Your task to perform on an android device: Open location settings Image 0: 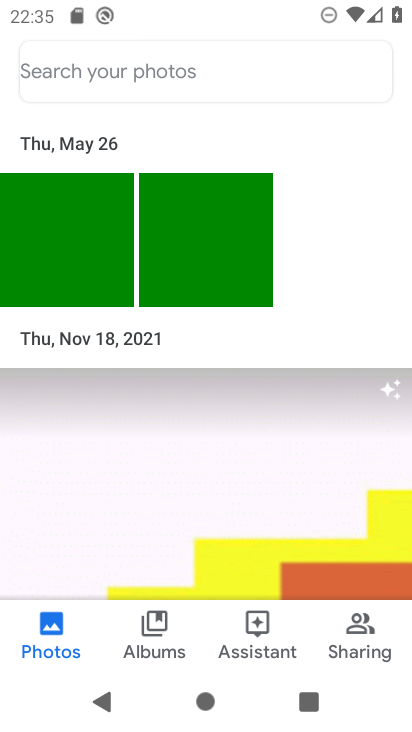
Step 0: press home button
Your task to perform on an android device: Open location settings Image 1: 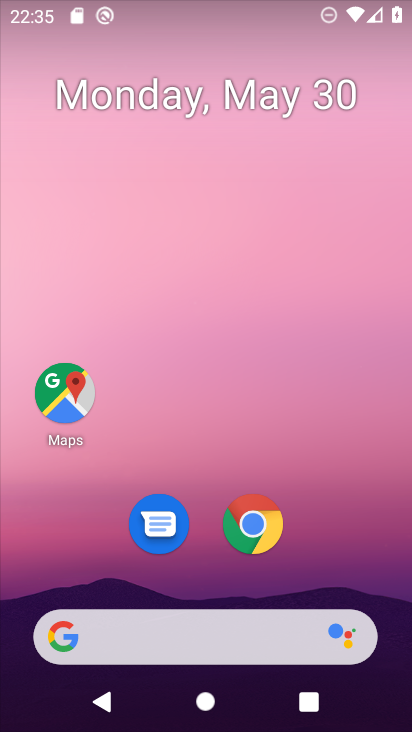
Step 1: drag from (325, 534) to (259, 42)
Your task to perform on an android device: Open location settings Image 2: 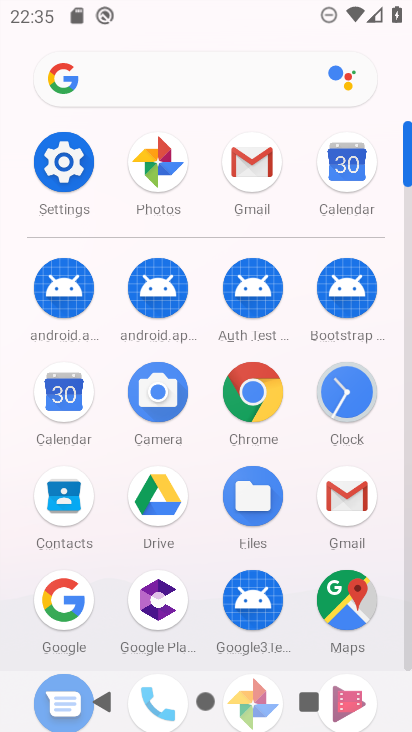
Step 2: click (58, 166)
Your task to perform on an android device: Open location settings Image 3: 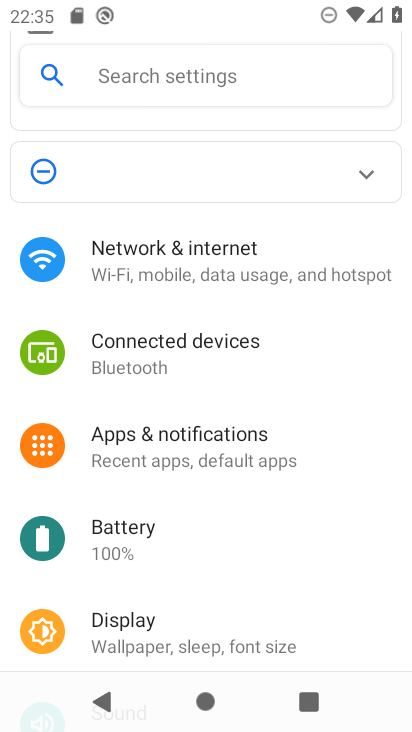
Step 3: drag from (205, 529) to (248, 167)
Your task to perform on an android device: Open location settings Image 4: 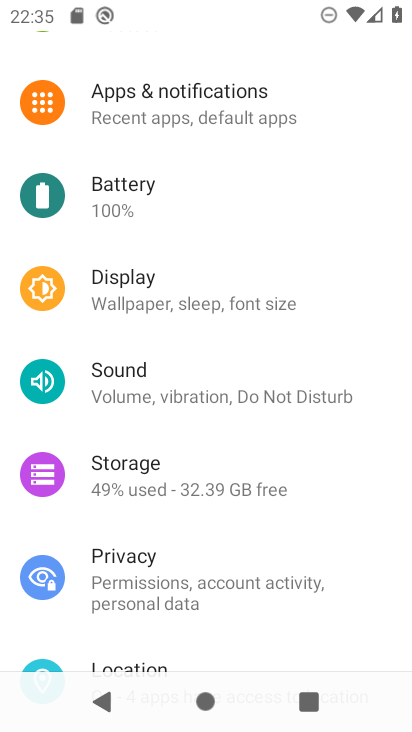
Step 4: drag from (189, 514) to (198, 132)
Your task to perform on an android device: Open location settings Image 5: 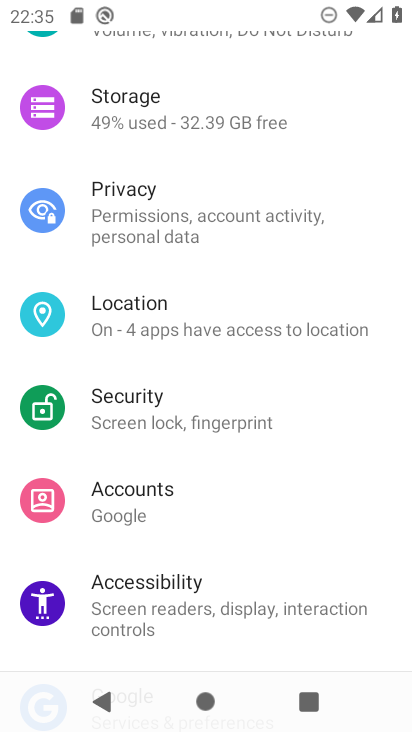
Step 5: click (186, 312)
Your task to perform on an android device: Open location settings Image 6: 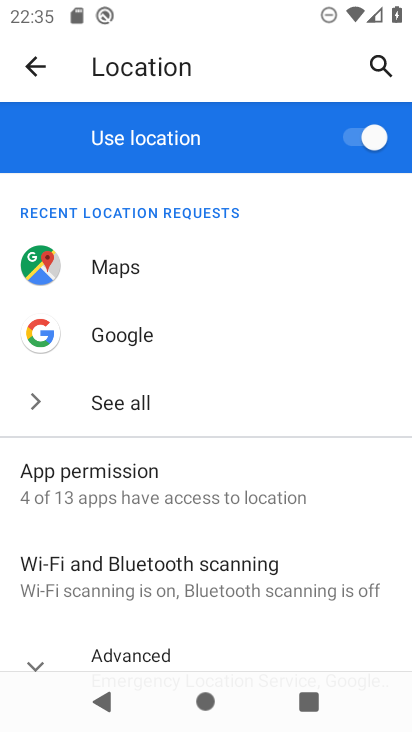
Step 6: task complete